Your task to perform on an android device: toggle sleep mode Image 0: 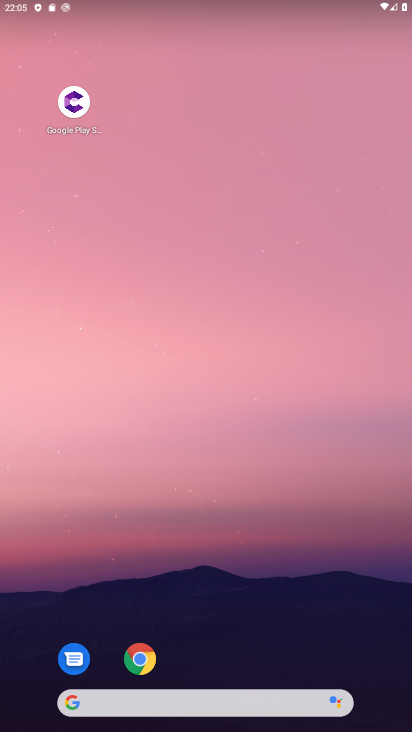
Step 0: drag from (282, 633) to (270, 261)
Your task to perform on an android device: toggle sleep mode Image 1: 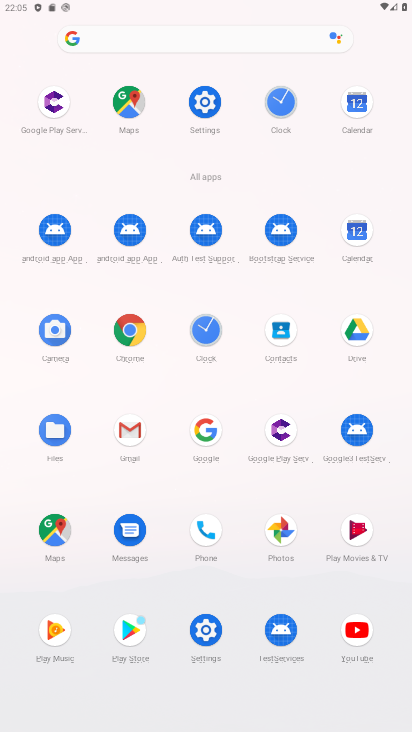
Step 1: click (196, 99)
Your task to perform on an android device: toggle sleep mode Image 2: 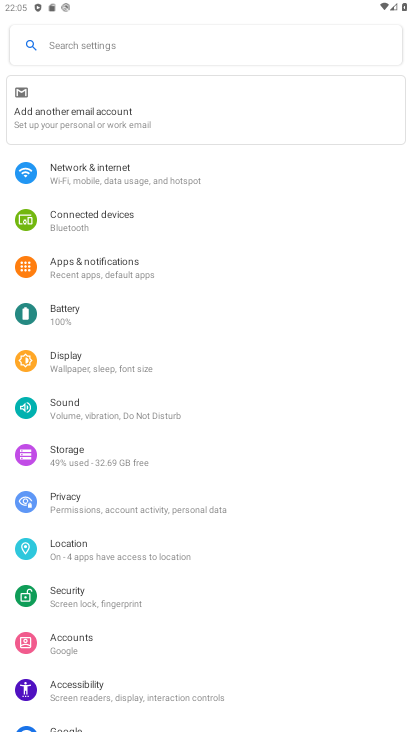
Step 2: task complete